Your task to perform on an android device: See recent photos Image 0: 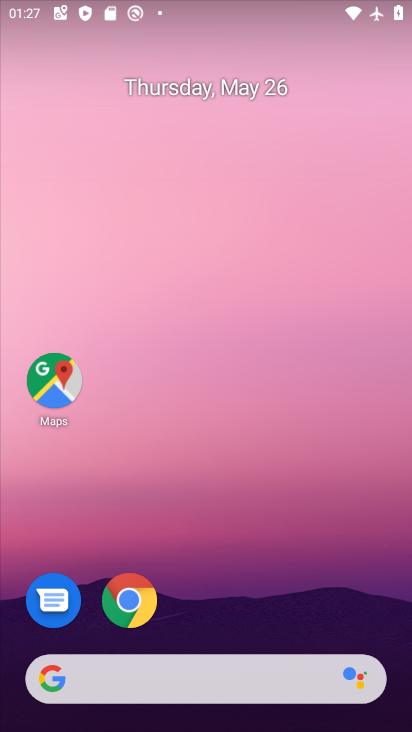
Step 0: drag from (274, 454) to (282, 2)
Your task to perform on an android device: See recent photos Image 1: 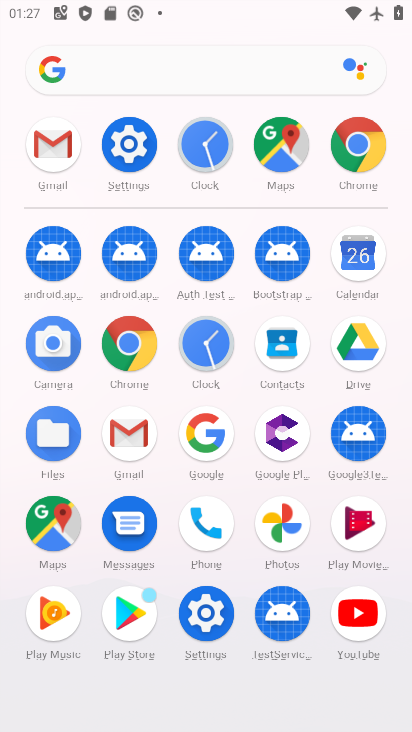
Step 1: click (287, 511)
Your task to perform on an android device: See recent photos Image 2: 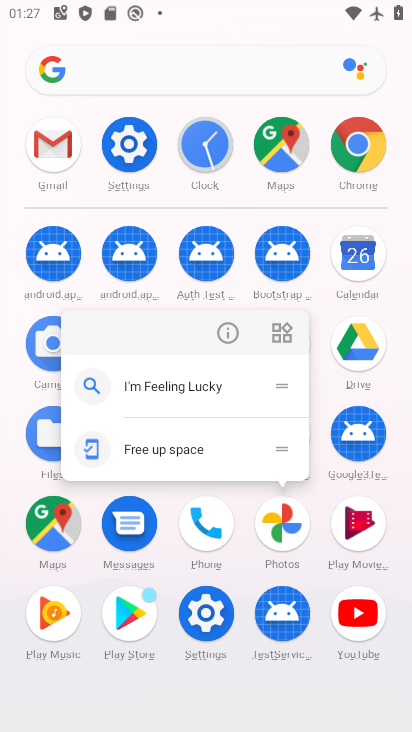
Step 2: click (282, 524)
Your task to perform on an android device: See recent photos Image 3: 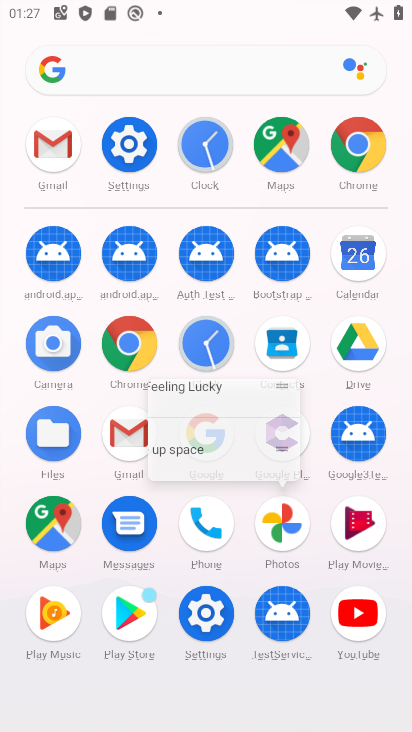
Step 3: click (282, 524)
Your task to perform on an android device: See recent photos Image 4: 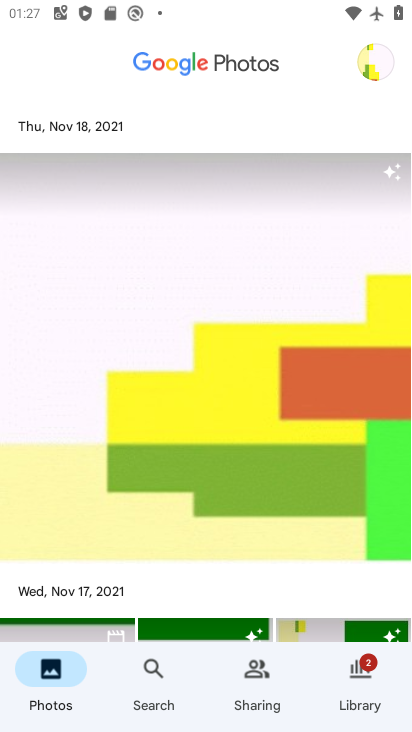
Step 4: task complete